Your task to perform on an android device: change timer sound Image 0: 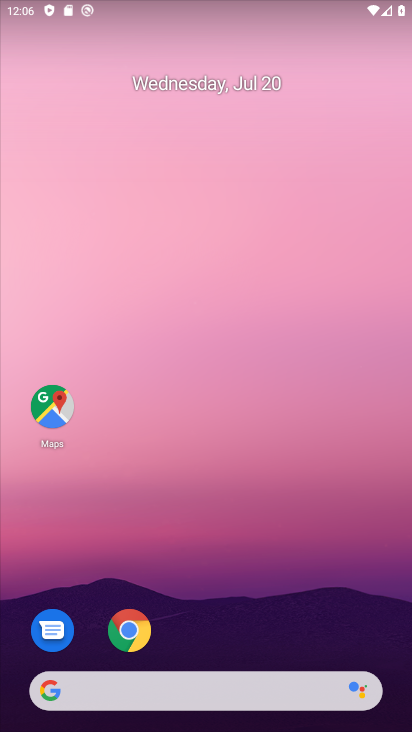
Step 0: press home button
Your task to perform on an android device: change timer sound Image 1: 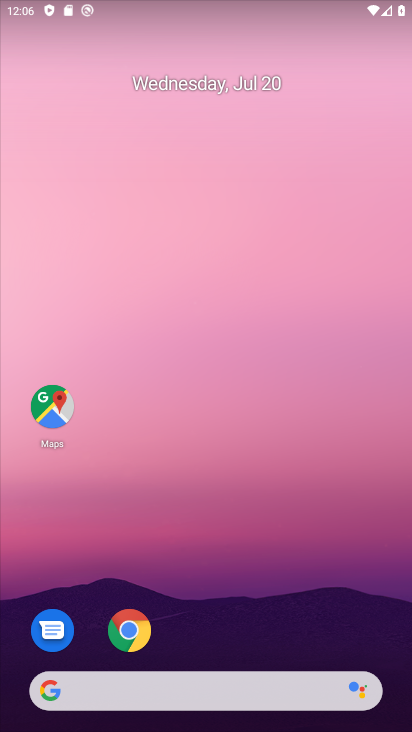
Step 1: drag from (301, 585) to (270, 72)
Your task to perform on an android device: change timer sound Image 2: 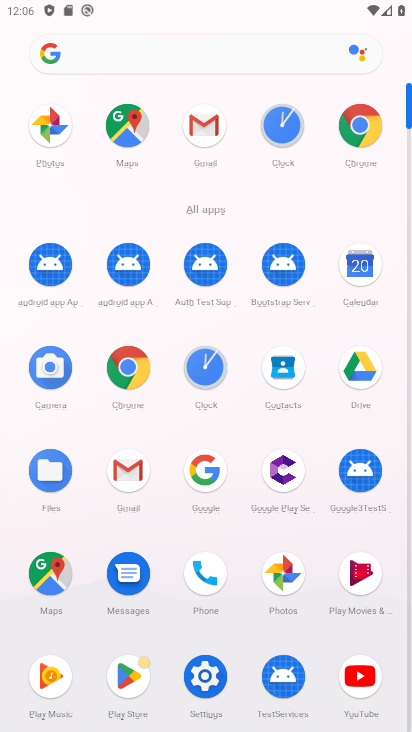
Step 2: click (211, 686)
Your task to perform on an android device: change timer sound Image 3: 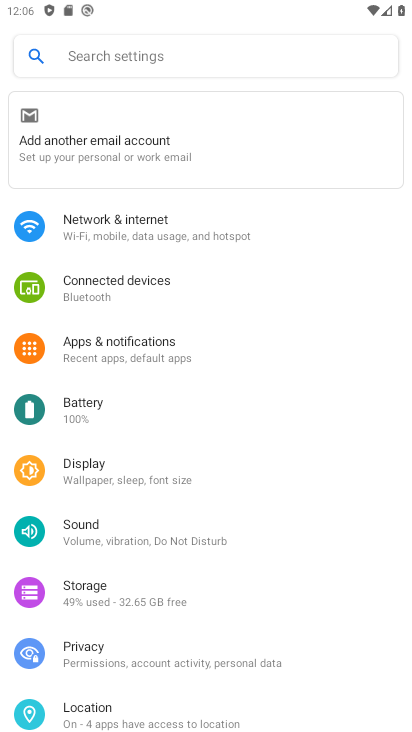
Step 3: drag from (96, 619) to (117, 347)
Your task to perform on an android device: change timer sound Image 4: 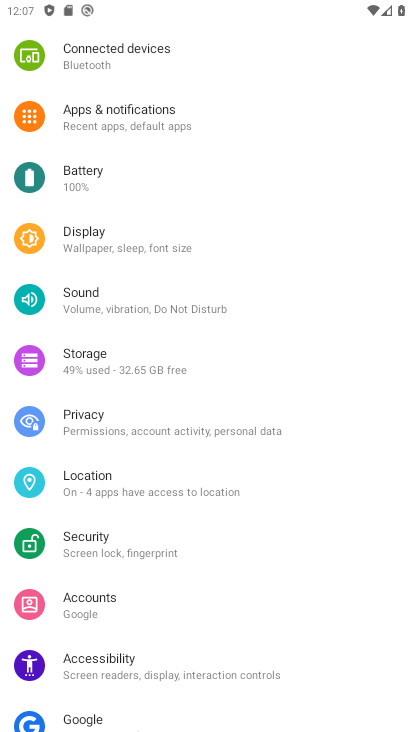
Step 4: click (96, 298)
Your task to perform on an android device: change timer sound Image 5: 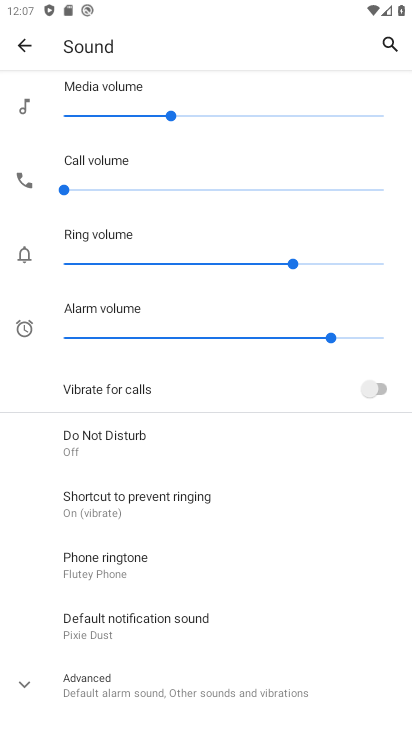
Step 5: task complete